Your task to perform on an android device: Open Reddit.com Image 0: 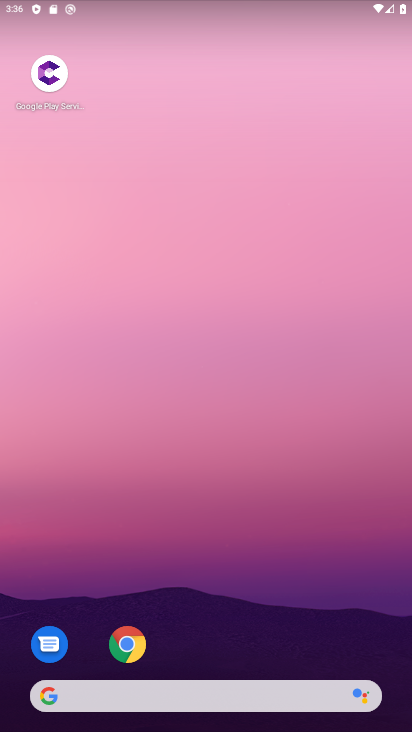
Step 0: click (122, 647)
Your task to perform on an android device: Open Reddit.com Image 1: 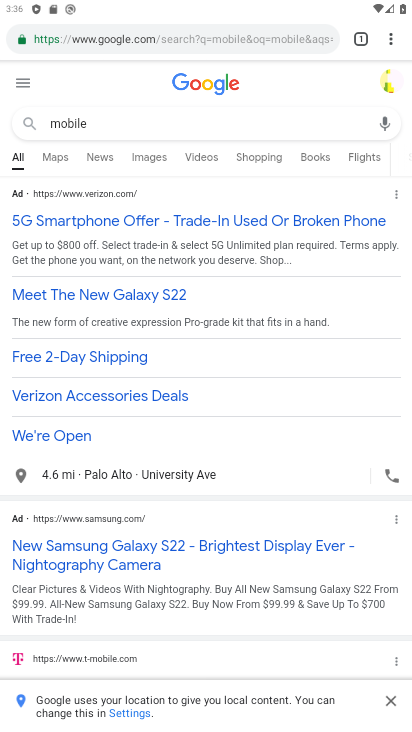
Step 1: click (359, 26)
Your task to perform on an android device: Open Reddit.com Image 2: 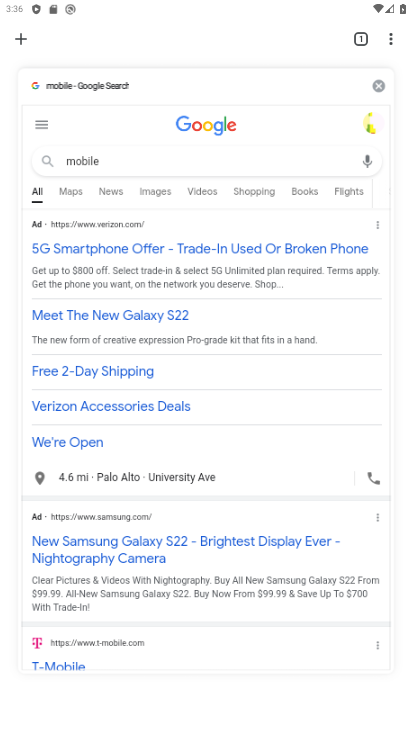
Step 2: click (378, 88)
Your task to perform on an android device: Open Reddit.com Image 3: 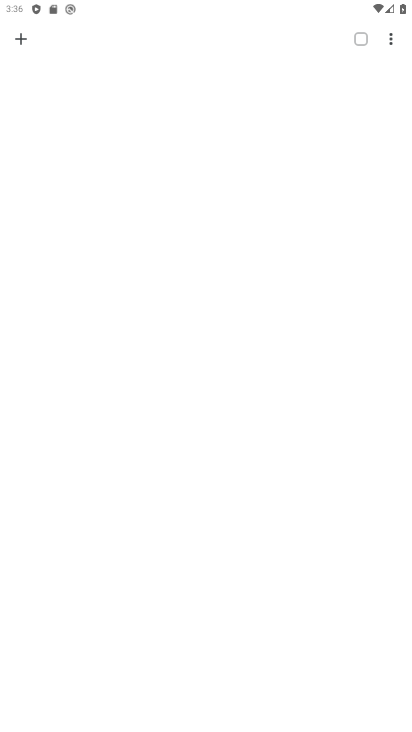
Step 3: click (18, 35)
Your task to perform on an android device: Open Reddit.com Image 4: 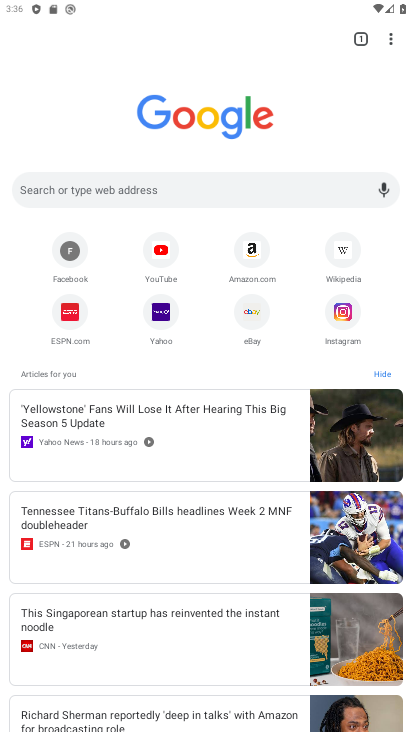
Step 4: click (136, 185)
Your task to perform on an android device: Open Reddit.com Image 5: 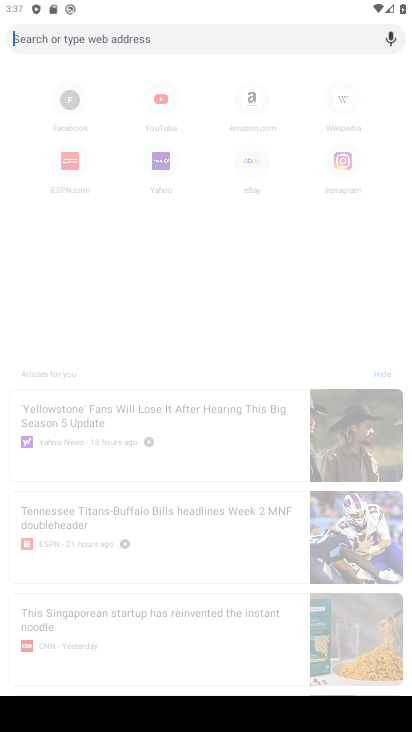
Step 5: type "reddit.com"
Your task to perform on an android device: Open Reddit.com Image 6: 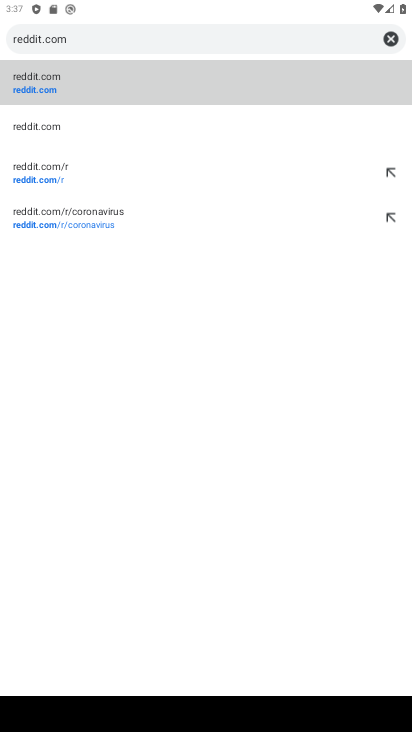
Step 6: click (63, 93)
Your task to perform on an android device: Open Reddit.com Image 7: 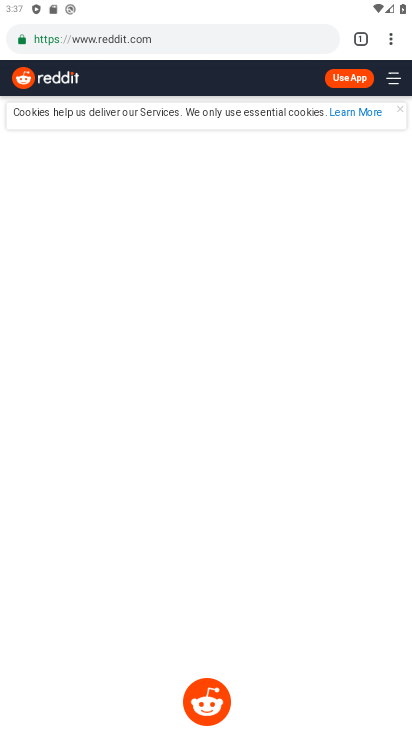
Step 7: task complete